Your task to perform on an android device: Search for the best rated desk chair on Article.com Image 0: 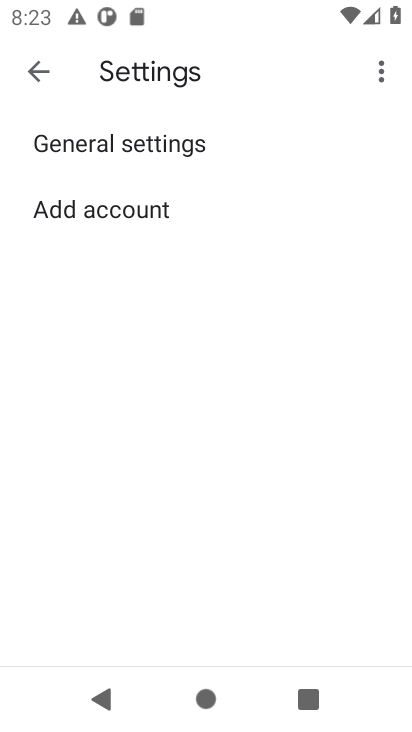
Step 0: press home button
Your task to perform on an android device: Search for the best rated desk chair on Article.com Image 1: 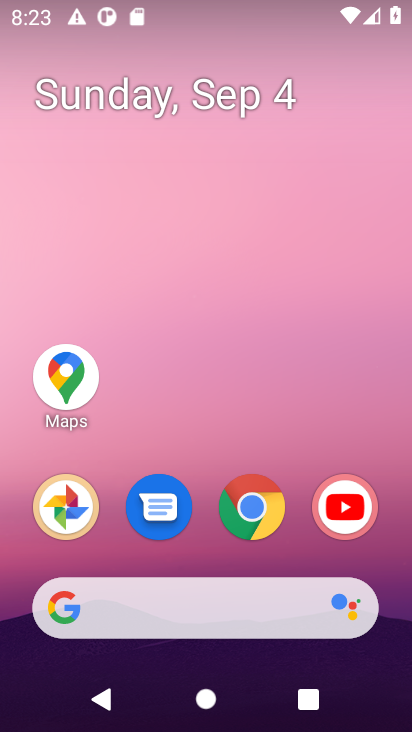
Step 1: click (255, 509)
Your task to perform on an android device: Search for the best rated desk chair on Article.com Image 2: 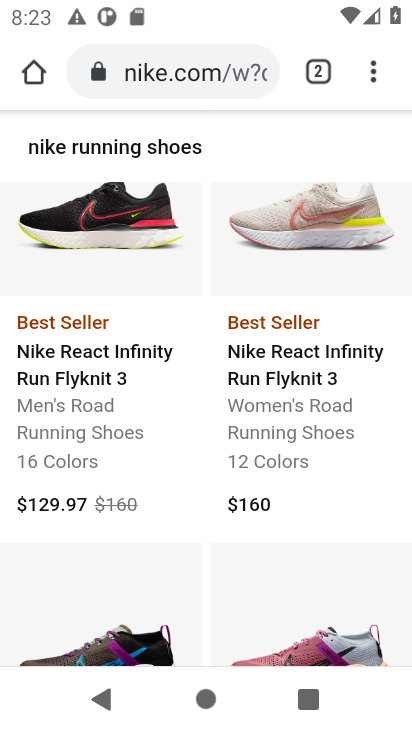
Step 2: click (165, 52)
Your task to perform on an android device: Search for the best rated desk chair on Article.com Image 3: 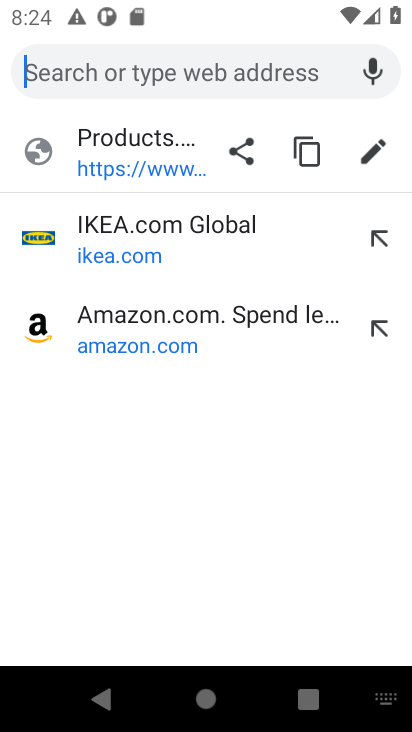
Step 3: type "Article.com"
Your task to perform on an android device: Search for the best rated desk chair on Article.com Image 4: 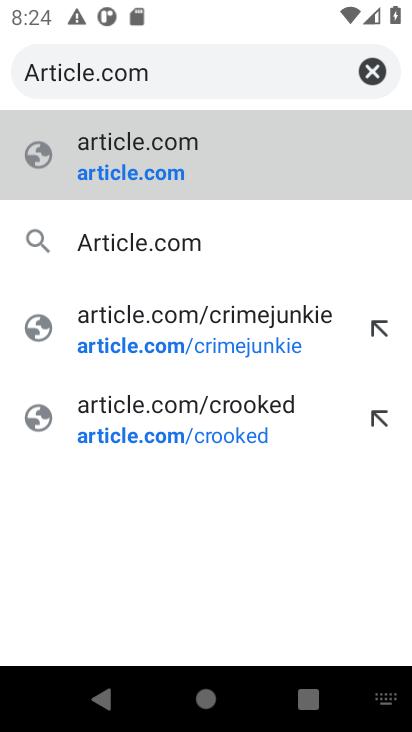
Step 4: click (124, 134)
Your task to perform on an android device: Search for the best rated desk chair on Article.com Image 5: 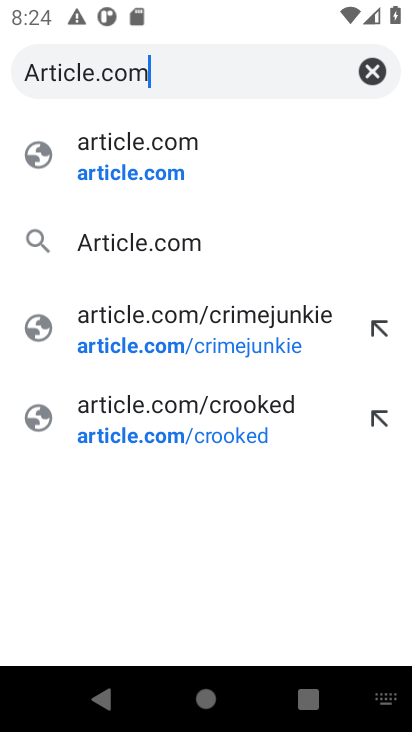
Step 5: click (119, 142)
Your task to perform on an android device: Search for the best rated desk chair on Article.com Image 6: 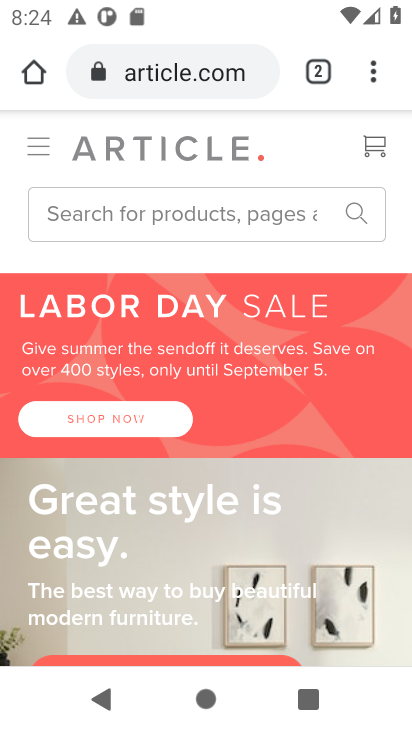
Step 6: click (129, 210)
Your task to perform on an android device: Search for the best rated desk chair on Article.com Image 7: 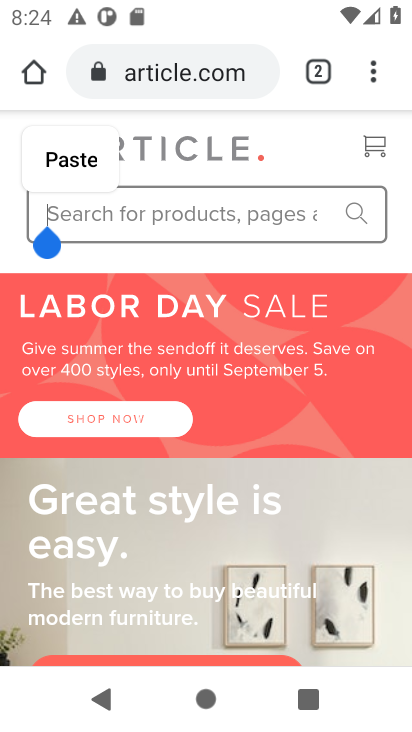
Step 7: type " best rated desk chair"
Your task to perform on an android device: Search for the best rated desk chair on Article.com Image 8: 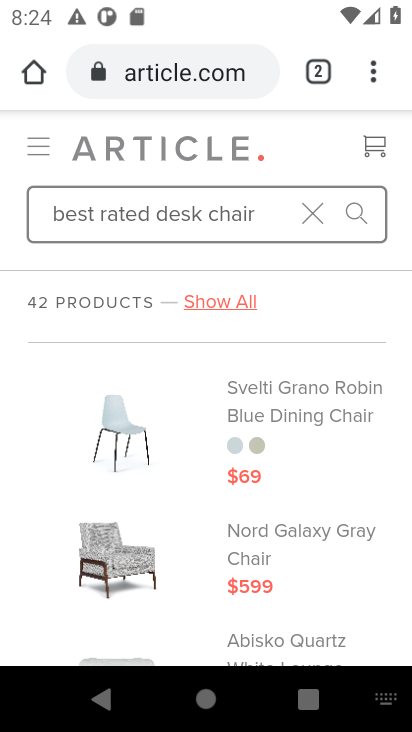
Step 8: drag from (207, 600) to (188, 287)
Your task to perform on an android device: Search for the best rated desk chair on Article.com Image 9: 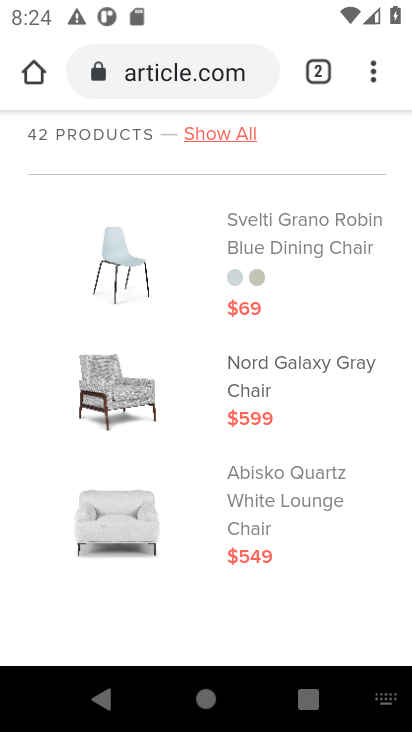
Step 9: drag from (204, 596) to (197, 152)
Your task to perform on an android device: Search for the best rated desk chair on Article.com Image 10: 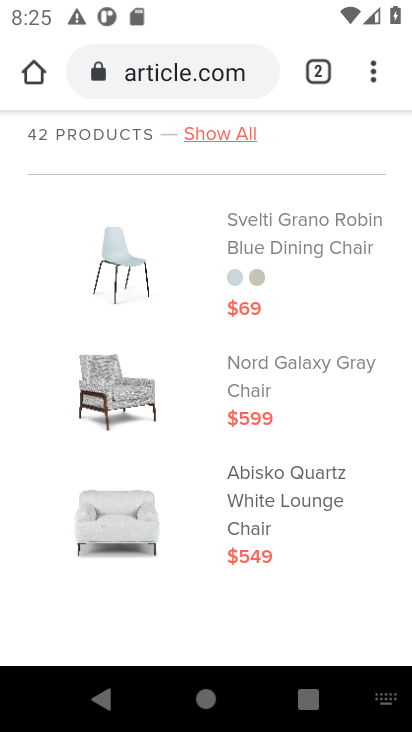
Step 10: drag from (193, 185) to (200, 476)
Your task to perform on an android device: Search for the best rated desk chair on Article.com Image 11: 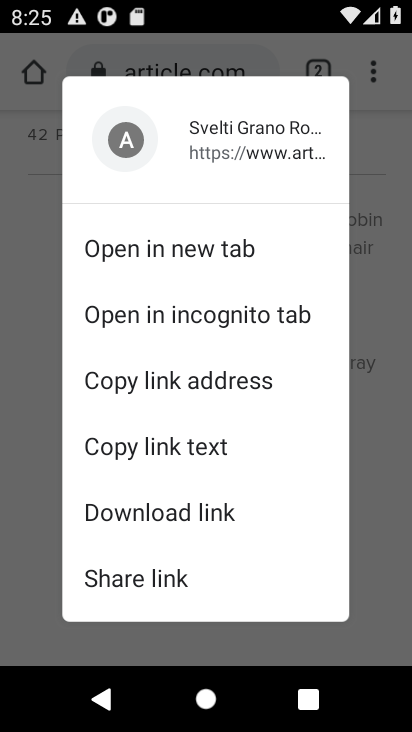
Step 11: click (29, 316)
Your task to perform on an android device: Search for the best rated desk chair on Article.com Image 12: 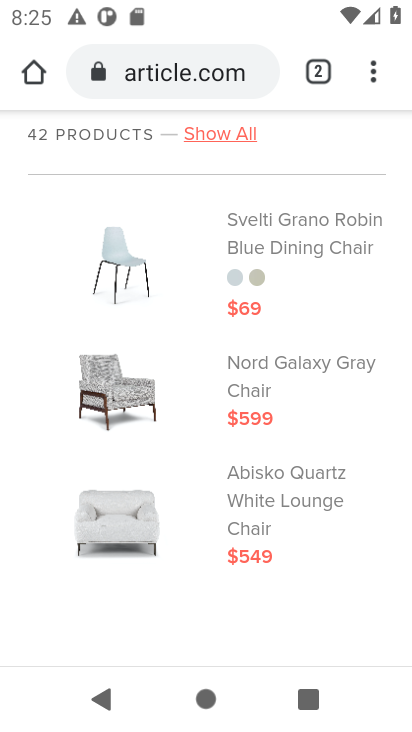
Step 12: drag from (199, 181) to (202, 499)
Your task to perform on an android device: Search for the best rated desk chair on Article.com Image 13: 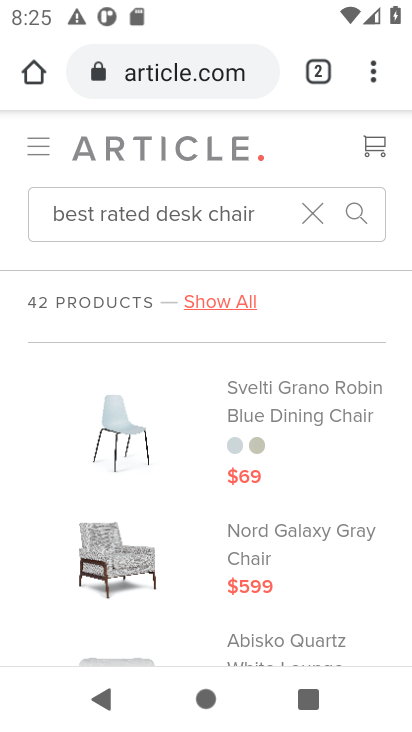
Step 13: click (353, 208)
Your task to perform on an android device: Search for the best rated desk chair on Article.com Image 14: 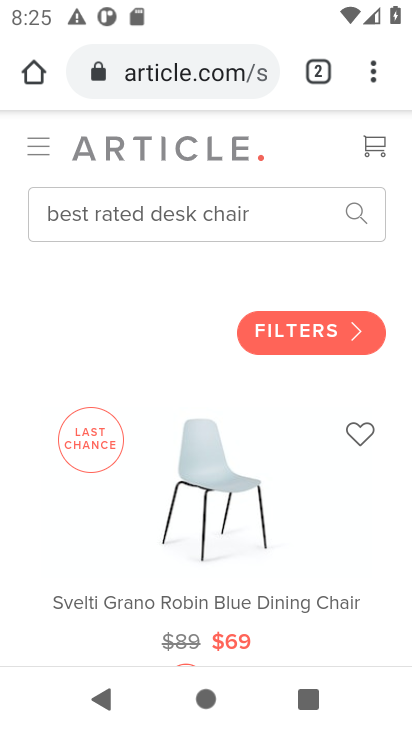
Step 14: task complete